Your task to perform on an android device: Do I have any events tomorrow? Image 0: 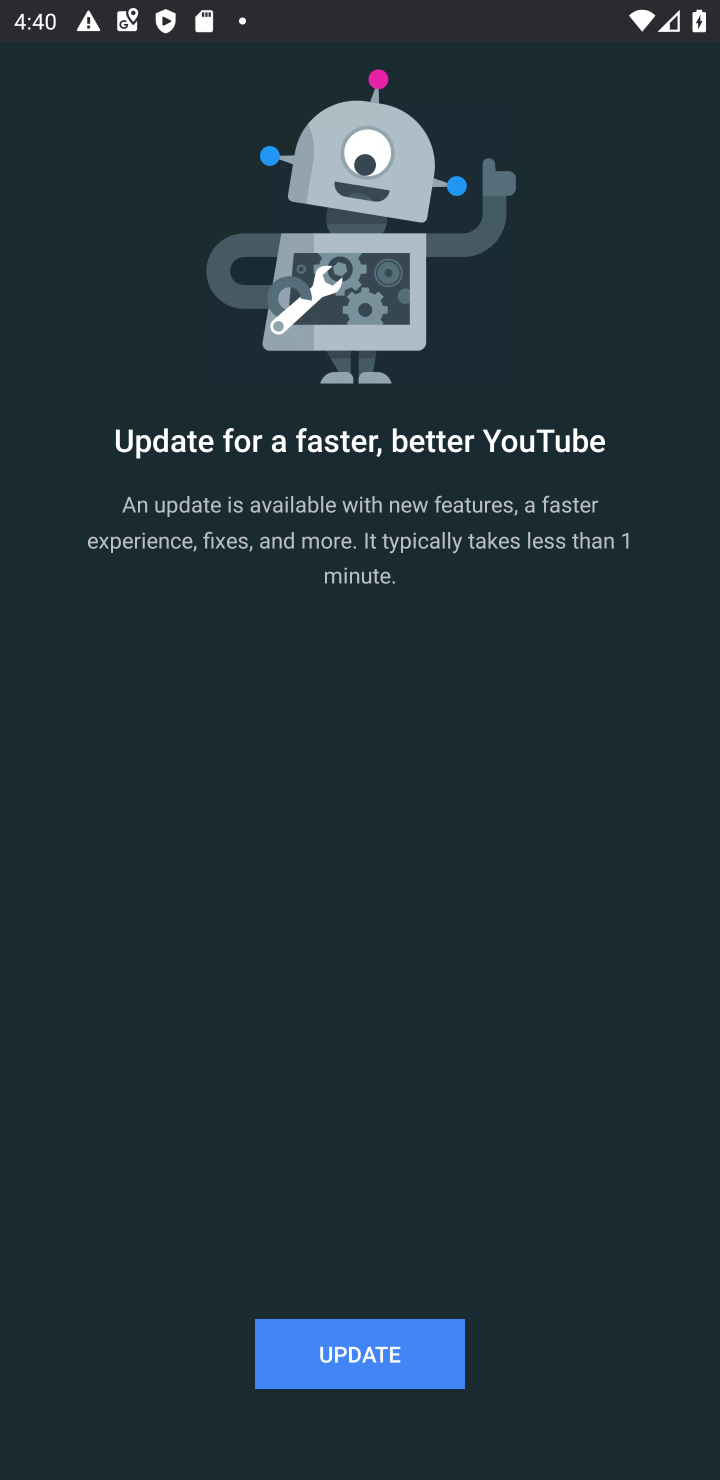
Step 0: press home button
Your task to perform on an android device: Do I have any events tomorrow? Image 1: 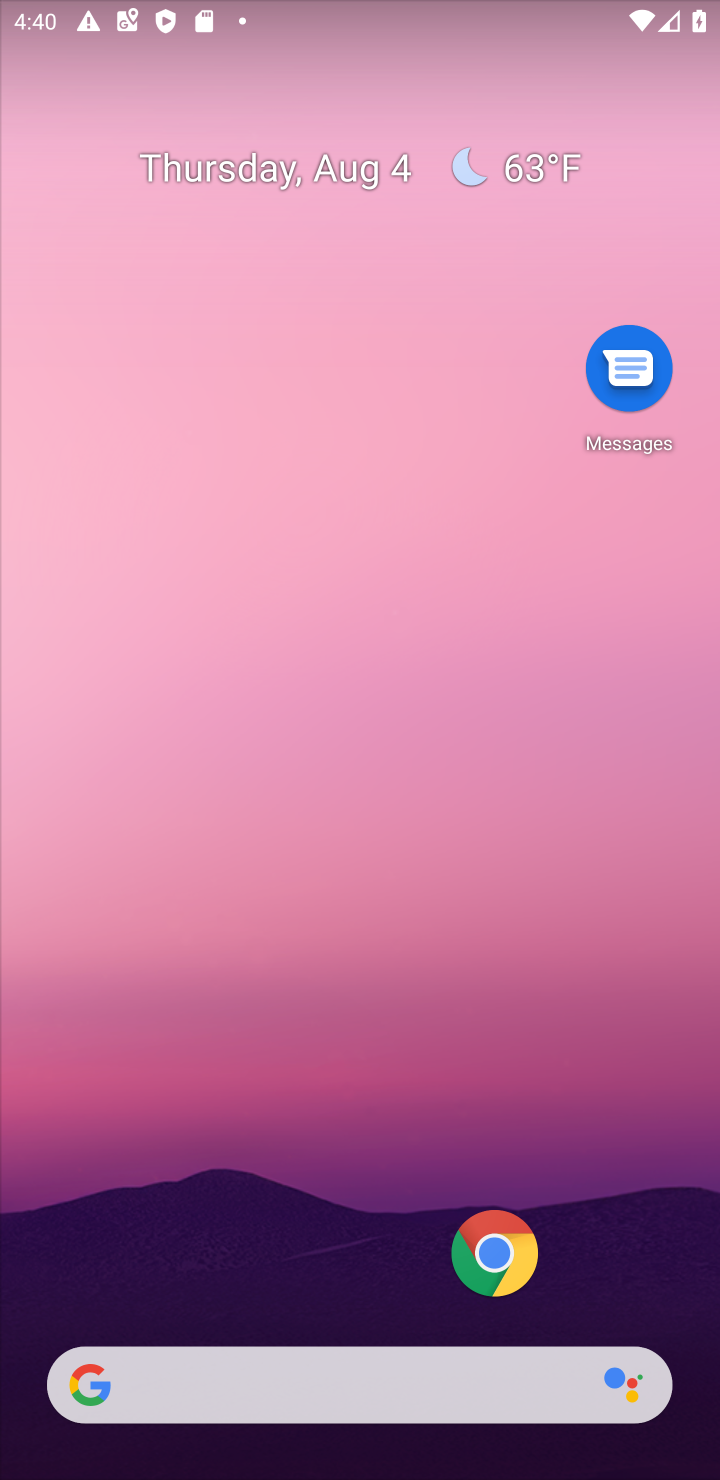
Step 1: drag from (268, 1138) to (192, 537)
Your task to perform on an android device: Do I have any events tomorrow? Image 2: 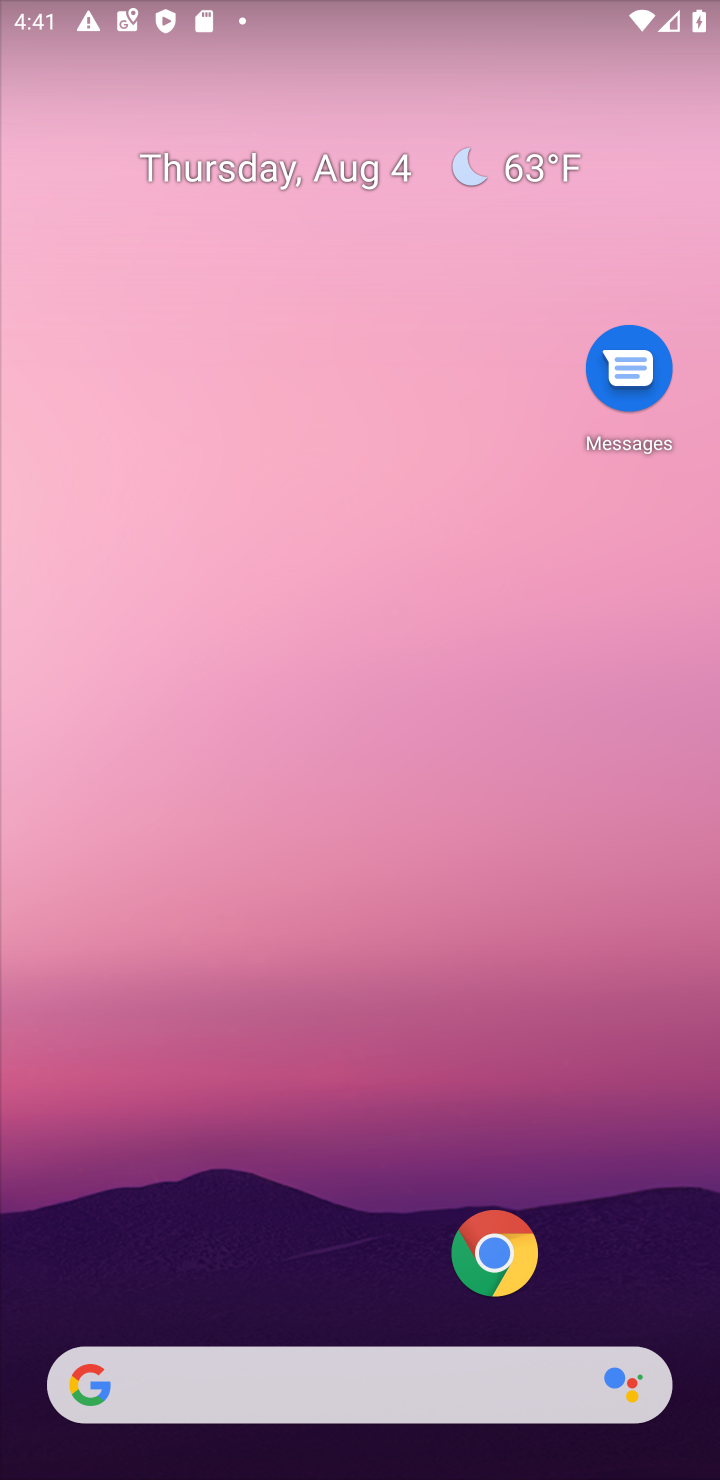
Step 2: drag from (396, 1326) to (347, 194)
Your task to perform on an android device: Do I have any events tomorrow? Image 3: 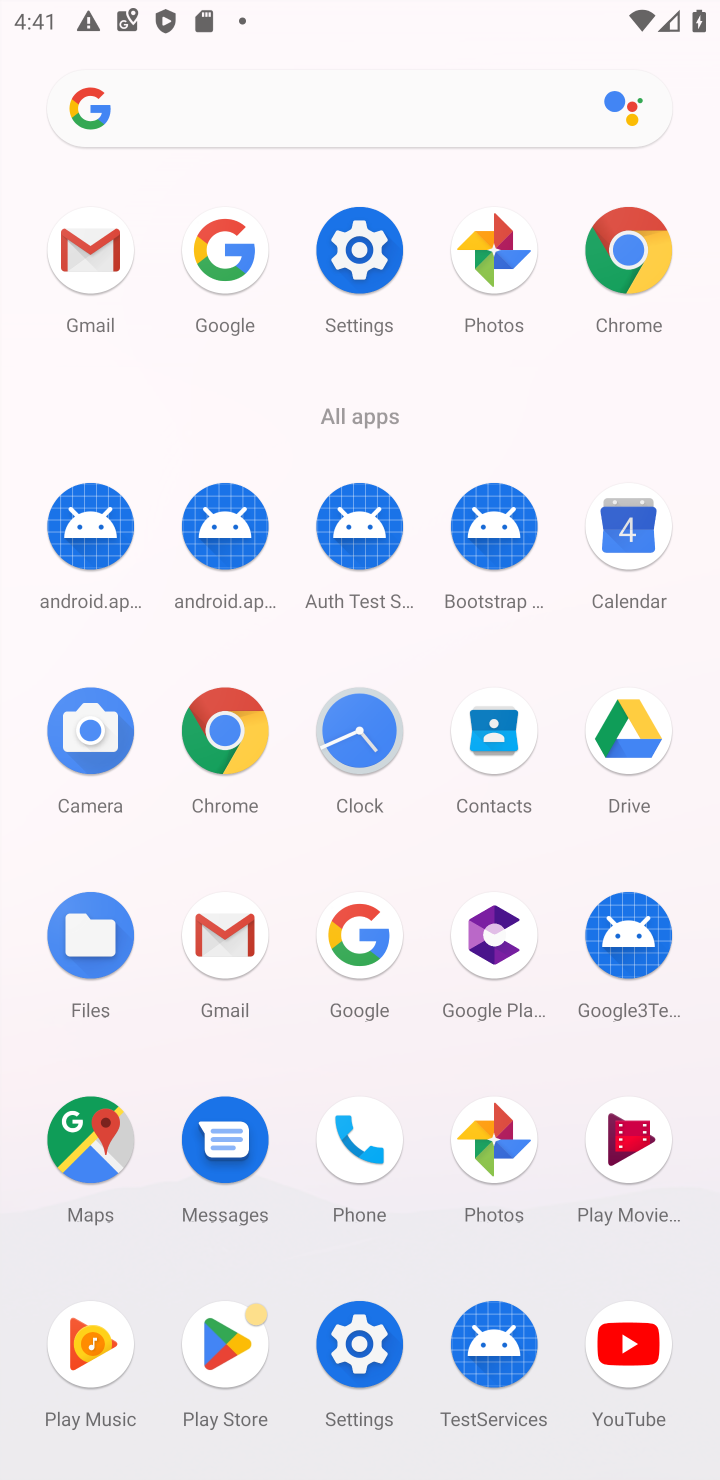
Step 3: click (638, 544)
Your task to perform on an android device: Do I have any events tomorrow? Image 4: 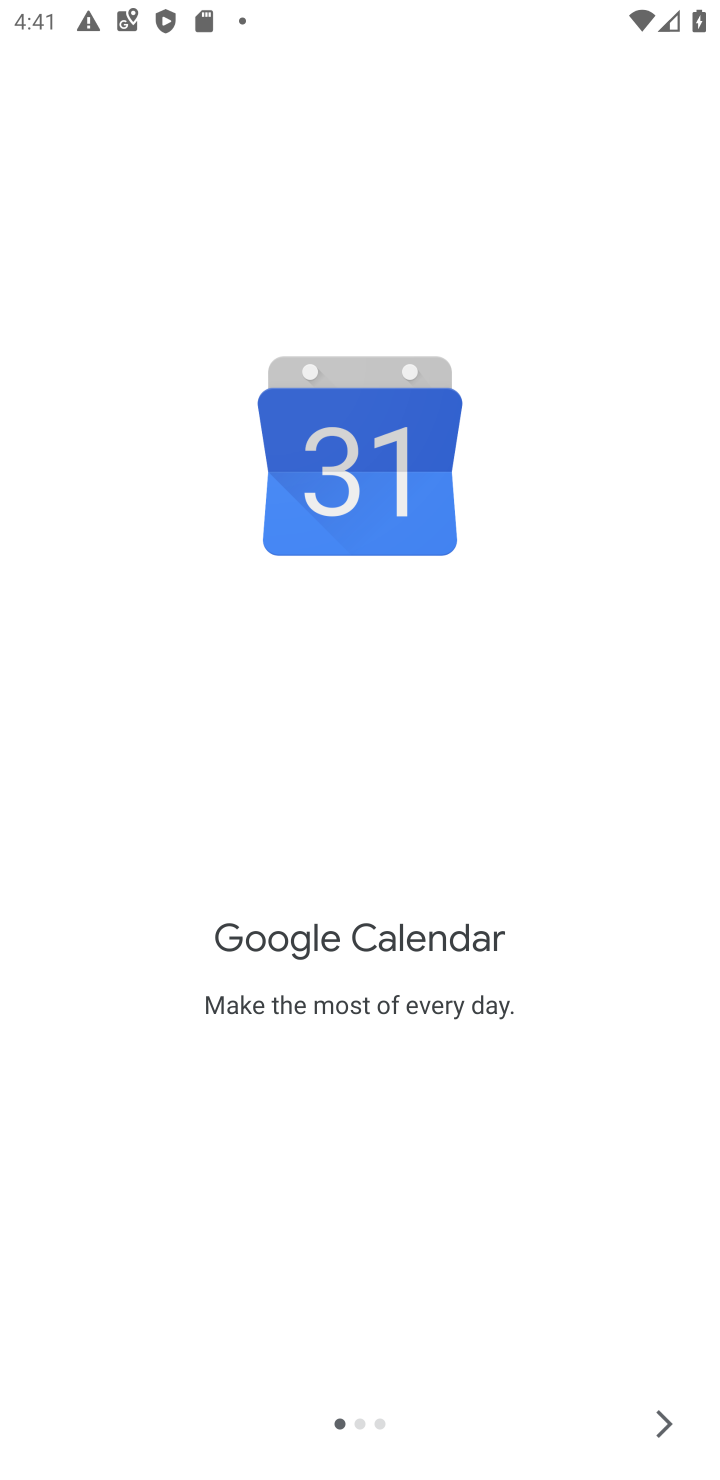
Step 4: click (676, 1421)
Your task to perform on an android device: Do I have any events tomorrow? Image 5: 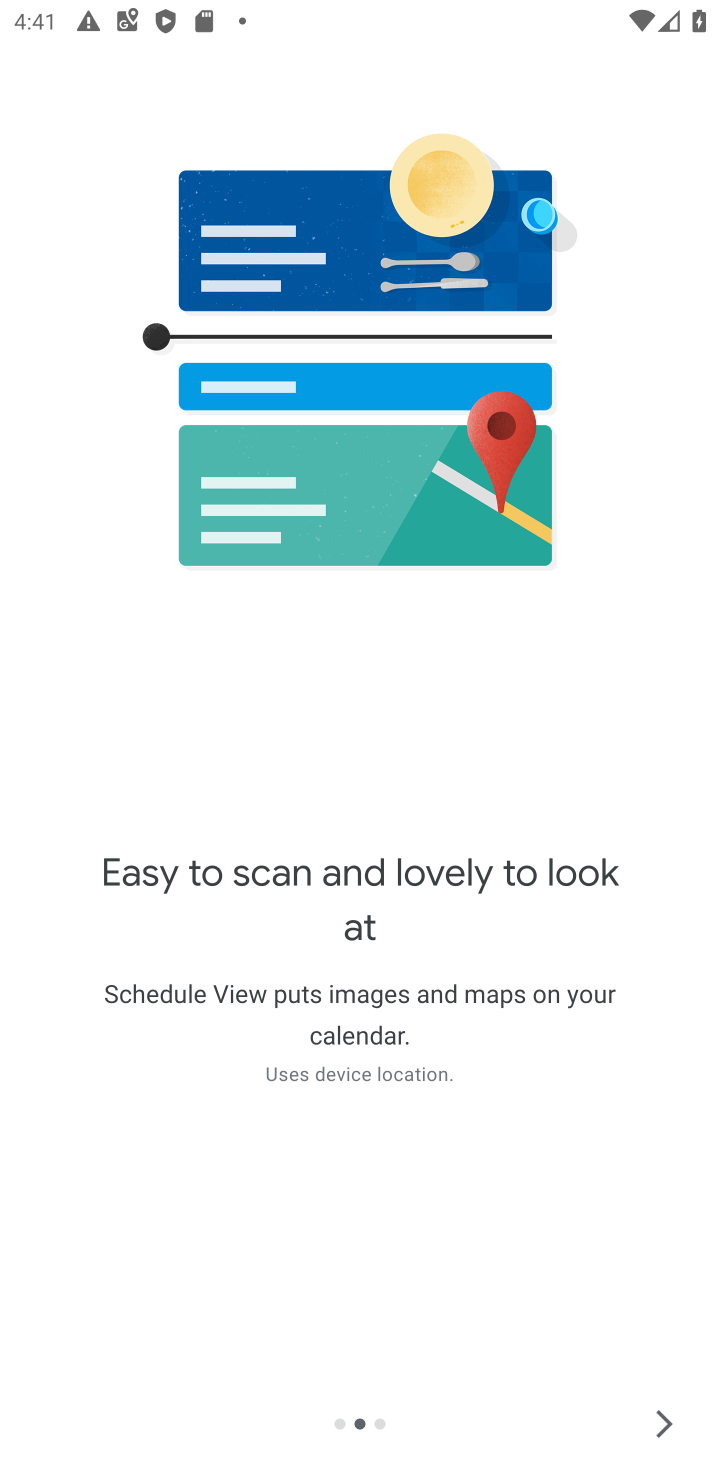
Step 5: click (672, 1421)
Your task to perform on an android device: Do I have any events tomorrow? Image 6: 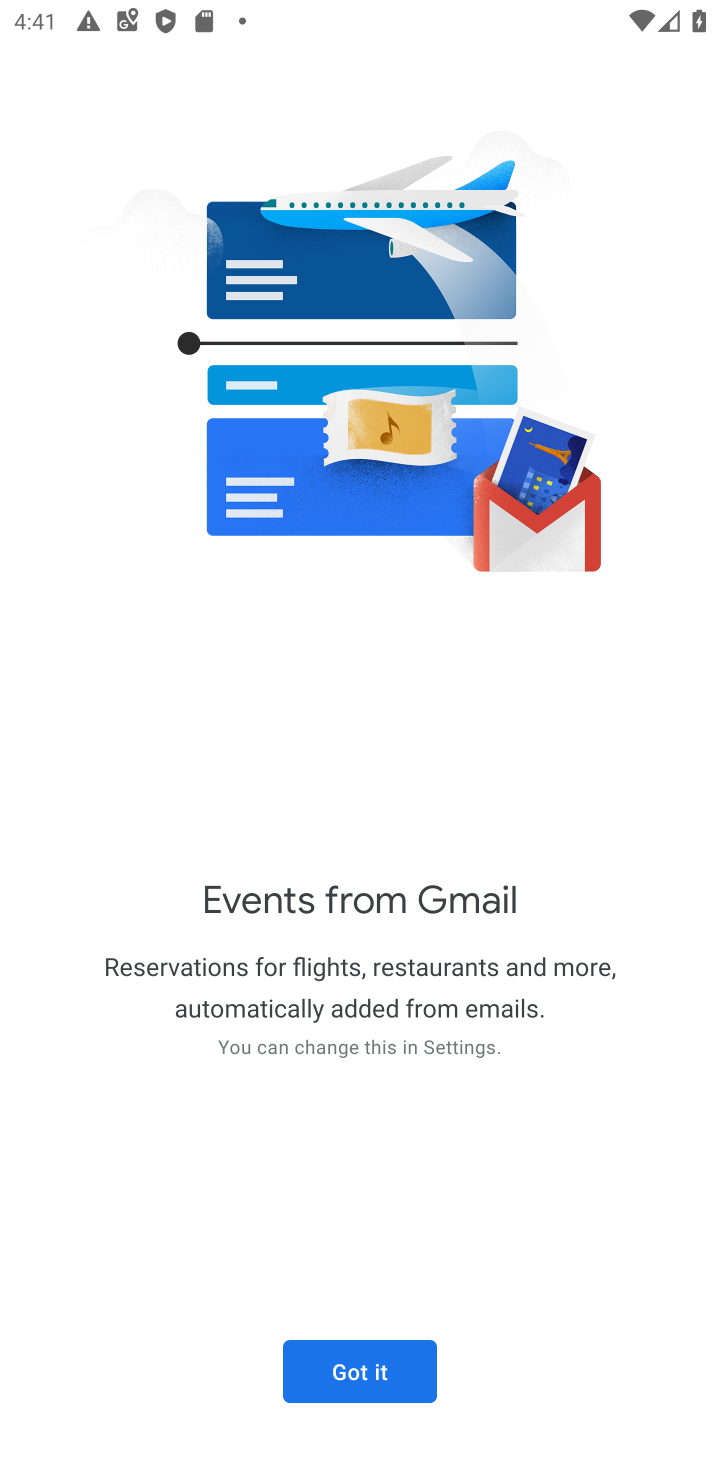
Step 6: click (358, 1369)
Your task to perform on an android device: Do I have any events tomorrow? Image 7: 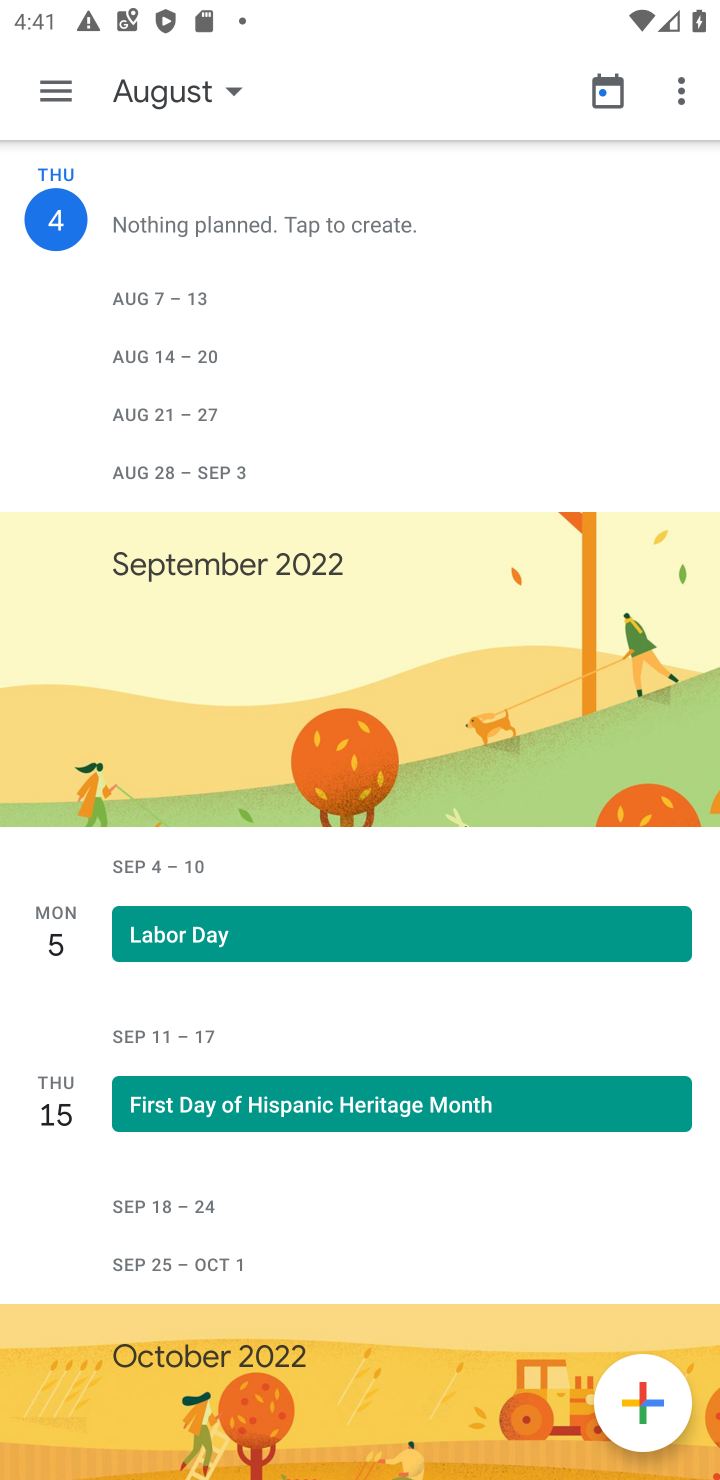
Step 7: click (174, 86)
Your task to perform on an android device: Do I have any events tomorrow? Image 8: 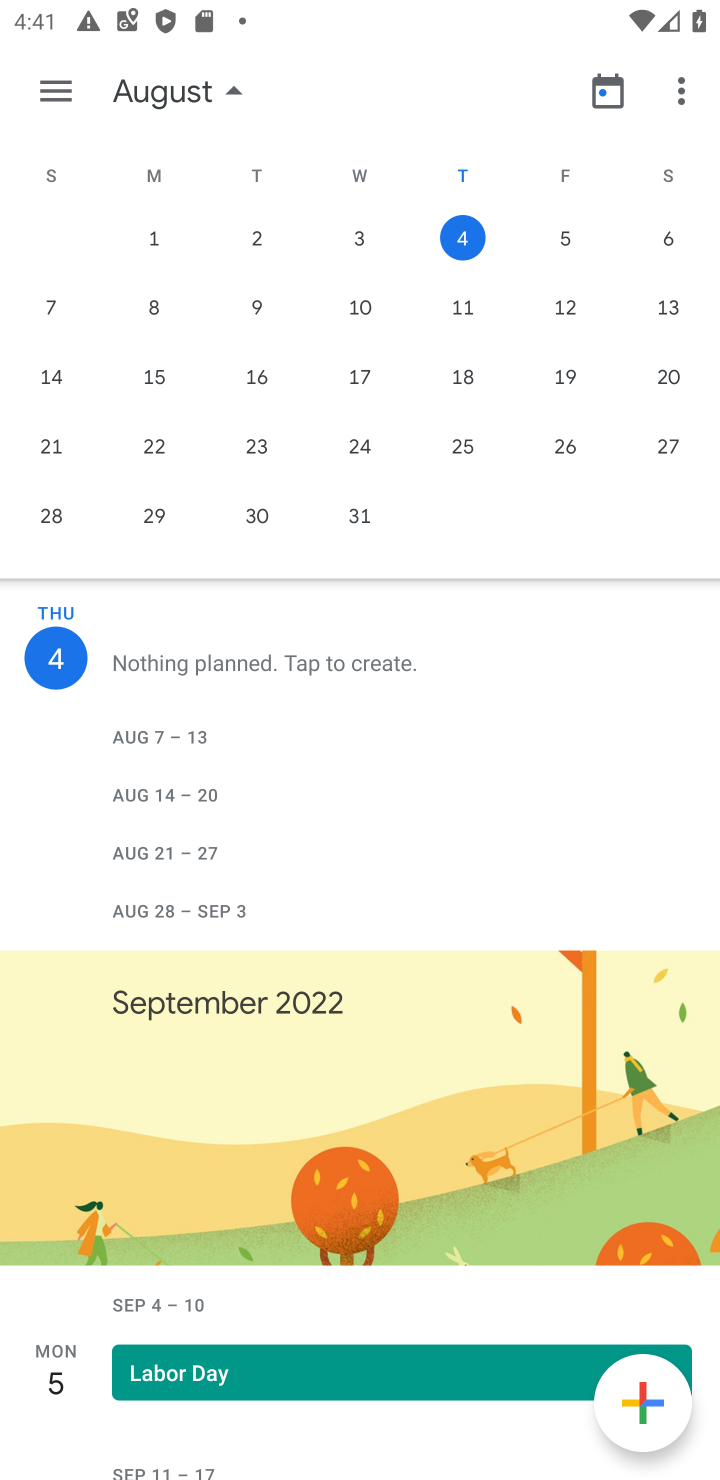
Step 8: click (568, 241)
Your task to perform on an android device: Do I have any events tomorrow? Image 9: 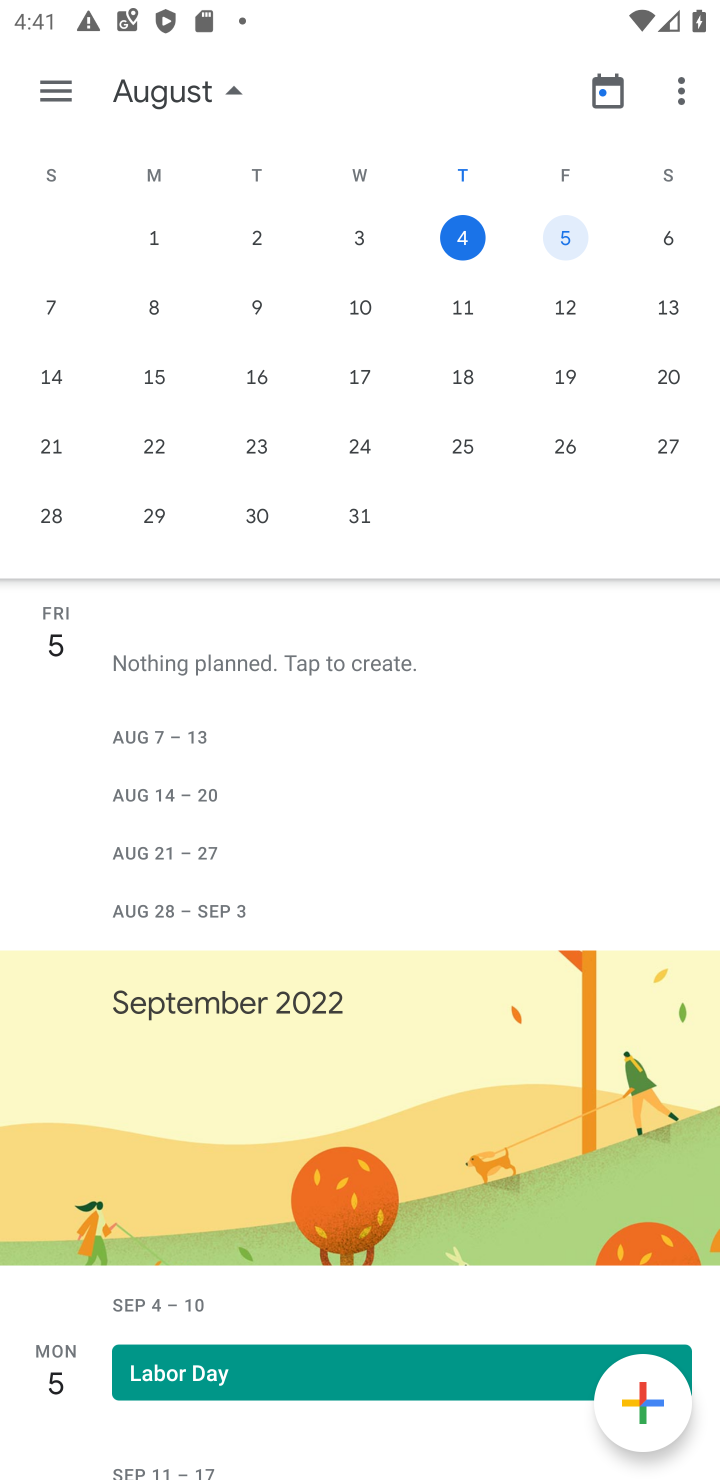
Step 9: task complete